Your task to perform on an android device: Go to privacy settings Image 0: 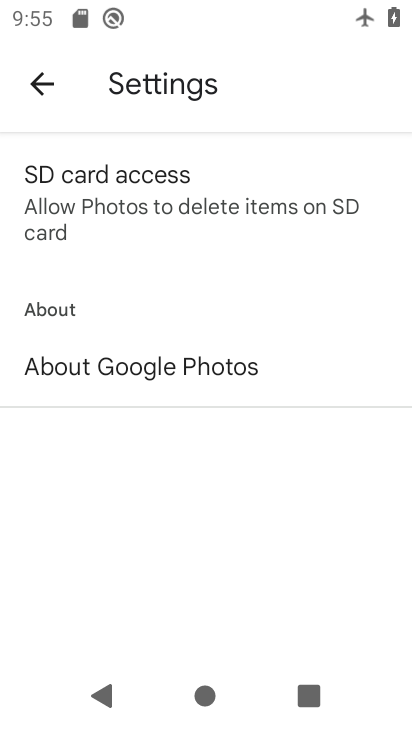
Step 0: press home button
Your task to perform on an android device: Go to privacy settings Image 1: 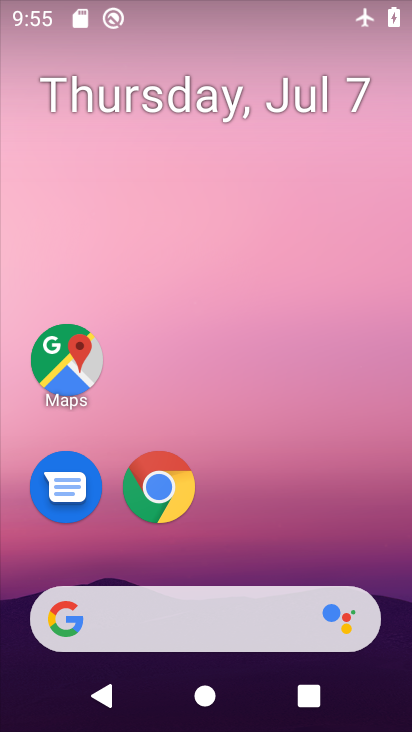
Step 1: drag from (371, 520) to (325, 128)
Your task to perform on an android device: Go to privacy settings Image 2: 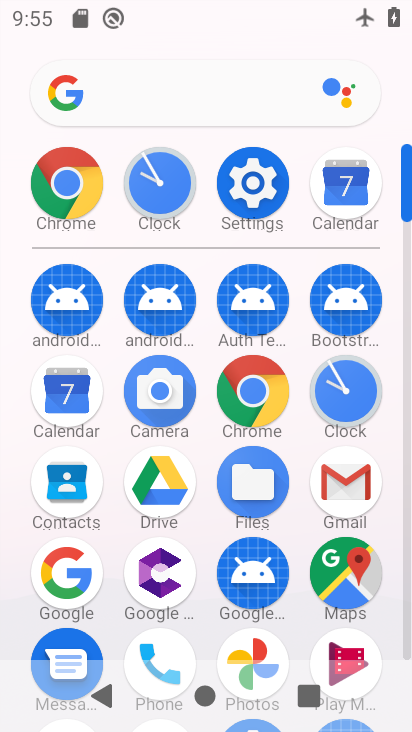
Step 2: click (259, 198)
Your task to perform on an android device: Go to privacy settings Image 3: 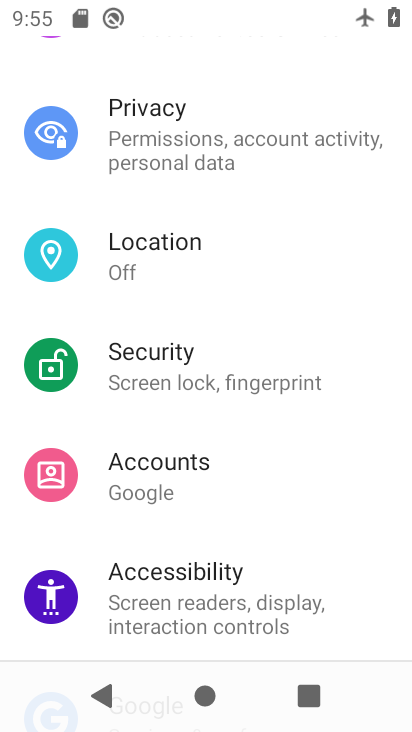
Step 3: drag from (344, 513) to (349, 384)
Your task to perform on an android device: Go to privacy settings Image 4: 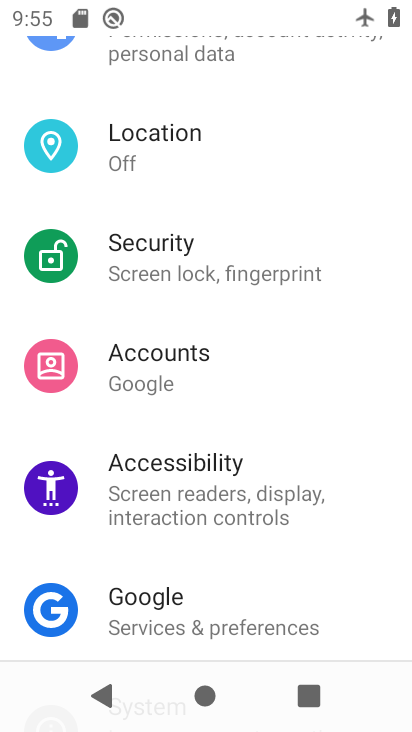
Step 4: drag from (352, 559) to (367, 410)
Your task to perform on an android device: Go to privacy settings Image 5: 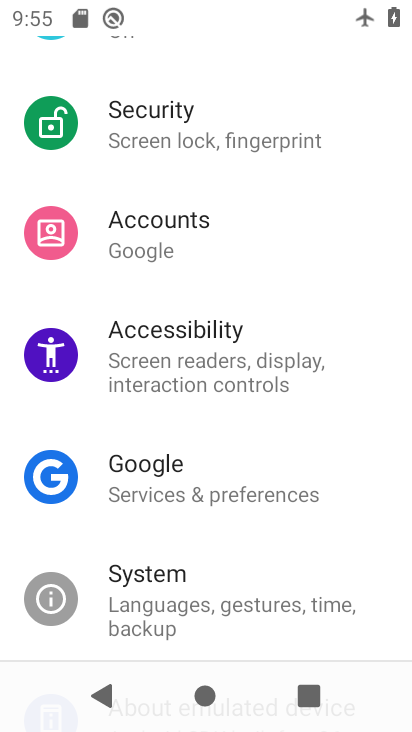
Step 5: drag from (345, 549) to (350, 354)
Your task to perform on an android device: Go to privacy settings Image 6: 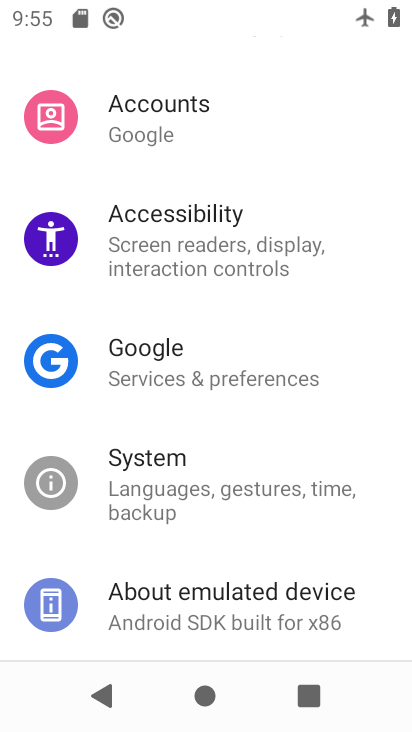
Step 6: drag from (348, 251) to (346, 379)
Your task to perform on an android device: Go to privacy settings Image 7: 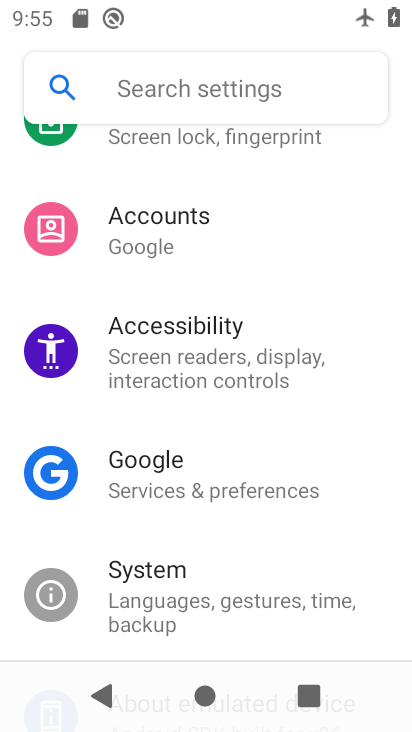
Step 7: drag from (343, 234) to (346, 396)
Your task to perform on an android device: Go to privacy settings Image 8: 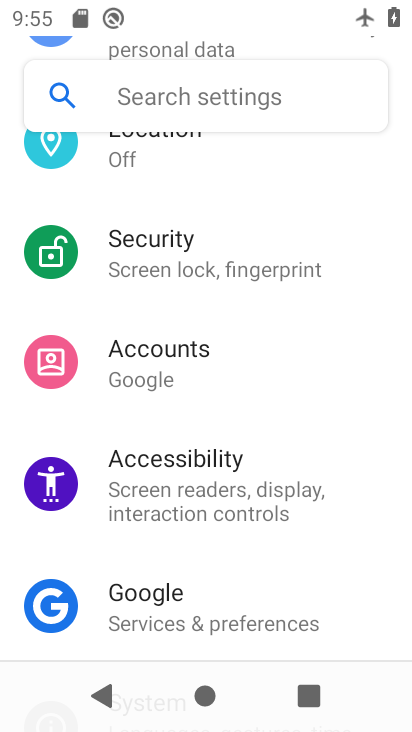
Step 8: drag from (355, 249) to (358, 412)
Your task to perform on an android device: Go to privacy settings Image 9: 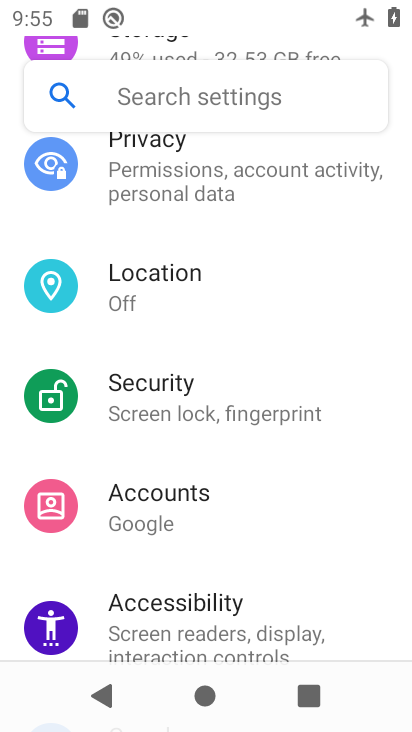
Step 9: drag from (358, 257) to (364, 396)
Your task to perform on an android device: Go to privacy settings Image 10: 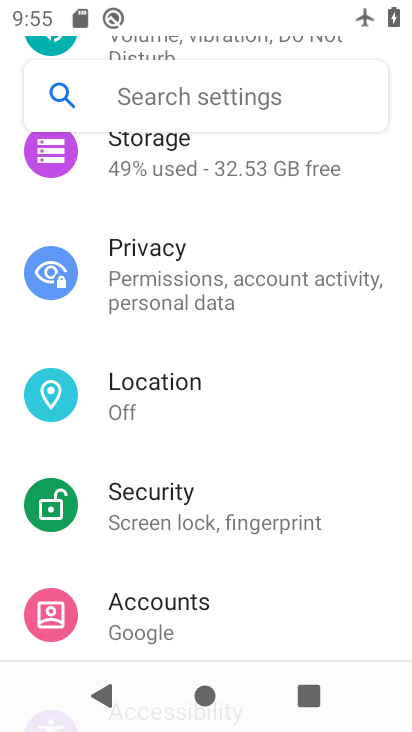
Step 10: drag from (356, 225) to (360, 389)
Your task to perform on an android device: Go to privacy settings Image 11: 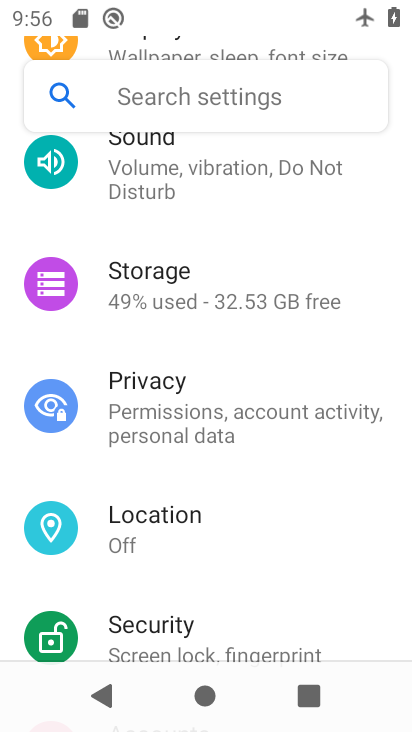
Step 11: click (291, 428)
Your task to perform on an android device: Go to privacy settings Image 12: 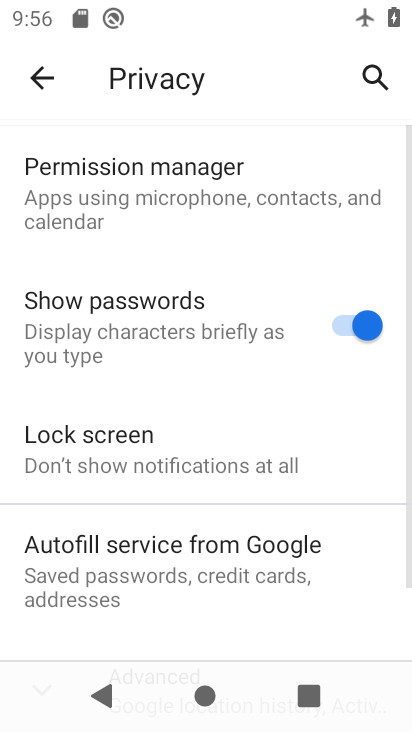
Step 12: task complete